Your task to perform on an android device: Clear the cart on amazon.com. Search for bose soundsport free on amazon.com, select the first entry, and add it to the cart. Image 0: 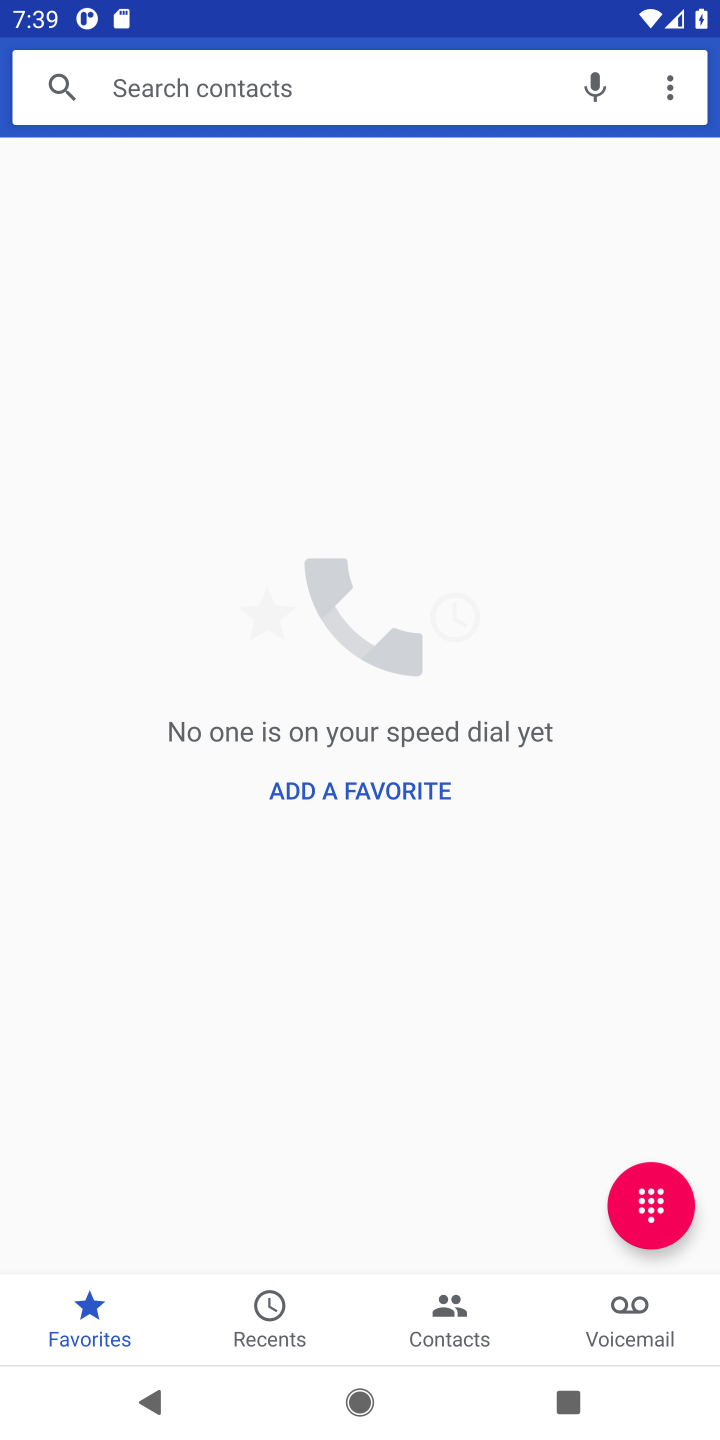
Step 0: press home button
Your task to perform on an android device: Clear the cart on amazon.com. Search for bose soundsport free on amazon.com, select the first entry, and add it to the cart. Image 1: 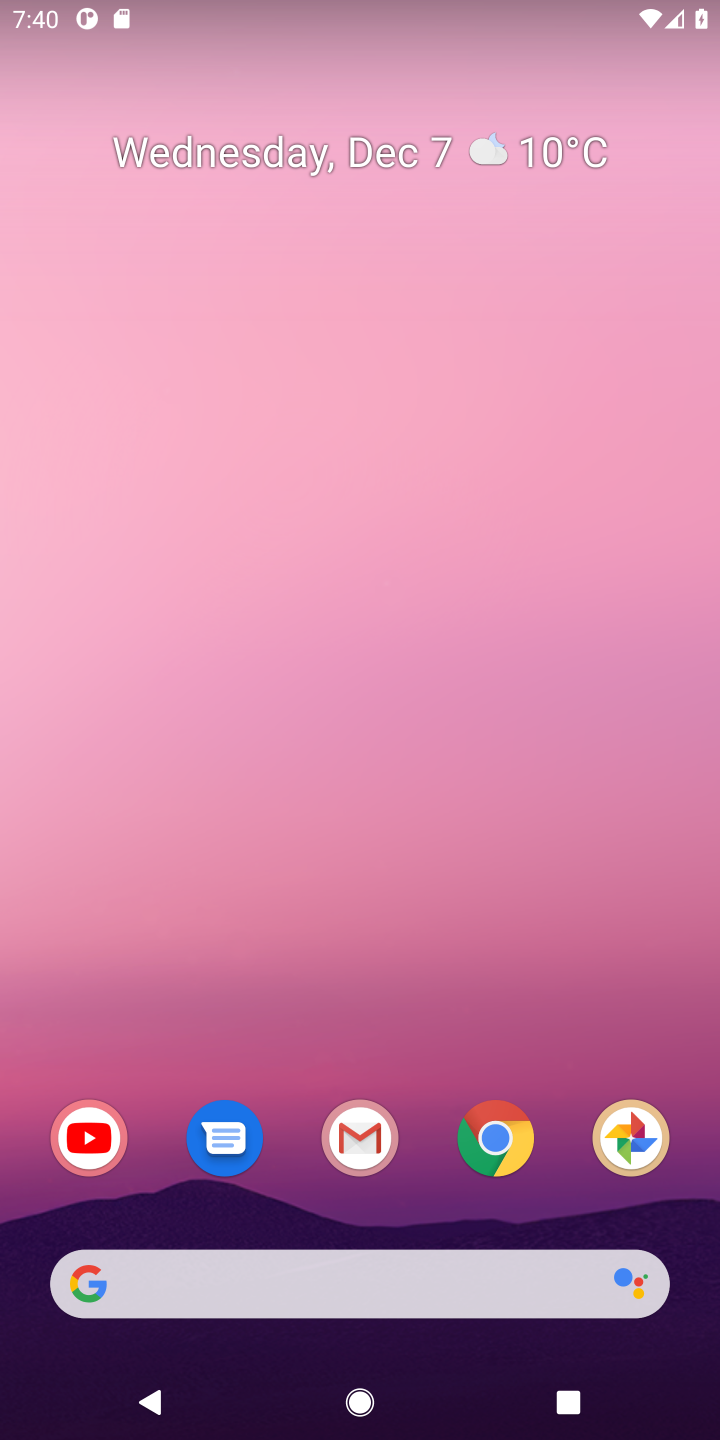
Step 1: click (139, 1283)
Your task to perform on an android device: Clear the cart on amazon.com. Search for bose soundsport free on amazon.com, select the first entry, and add it to the cart. Image 2: 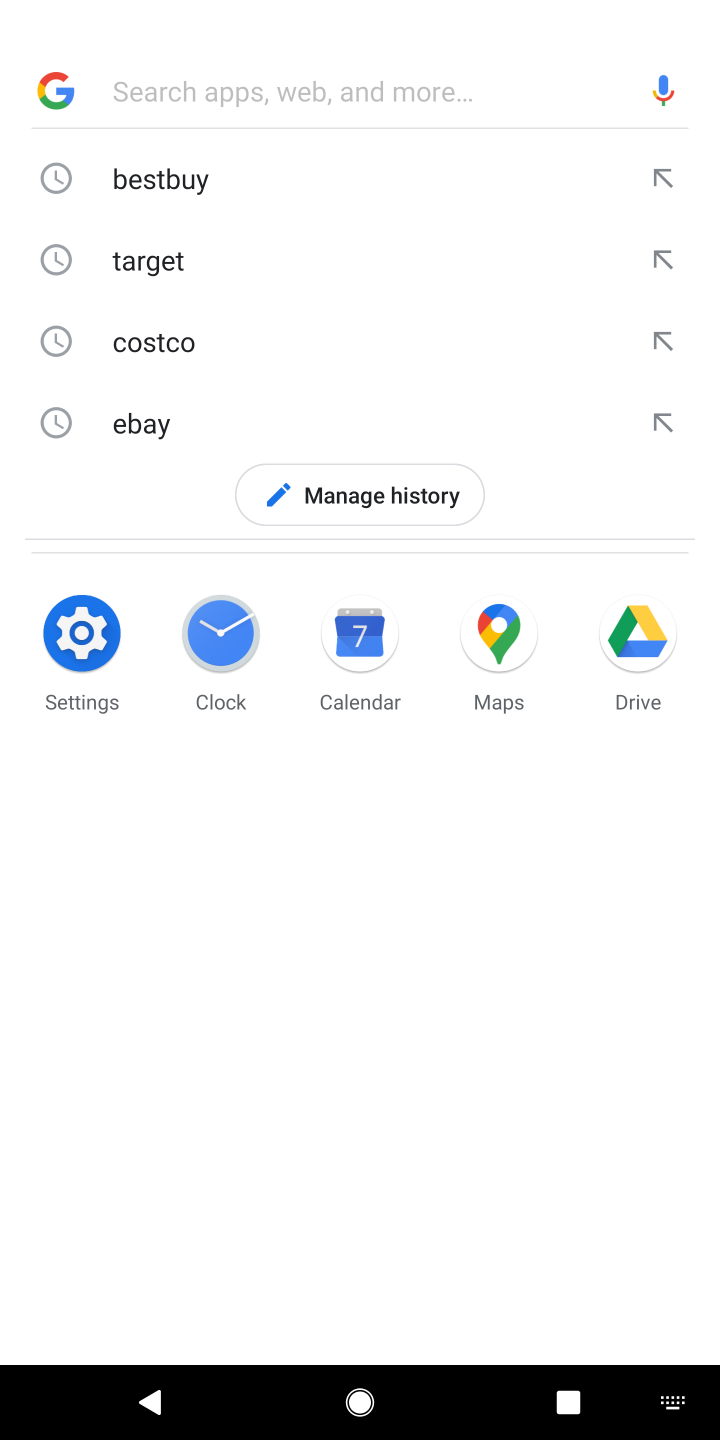
Step 2: type "amazon.com"
Your task to perform on an android device: Clear the cart on amazon.com. Search for bose soundsport free on amazon.com, select the first entry, and add it to the cart. Image 3: 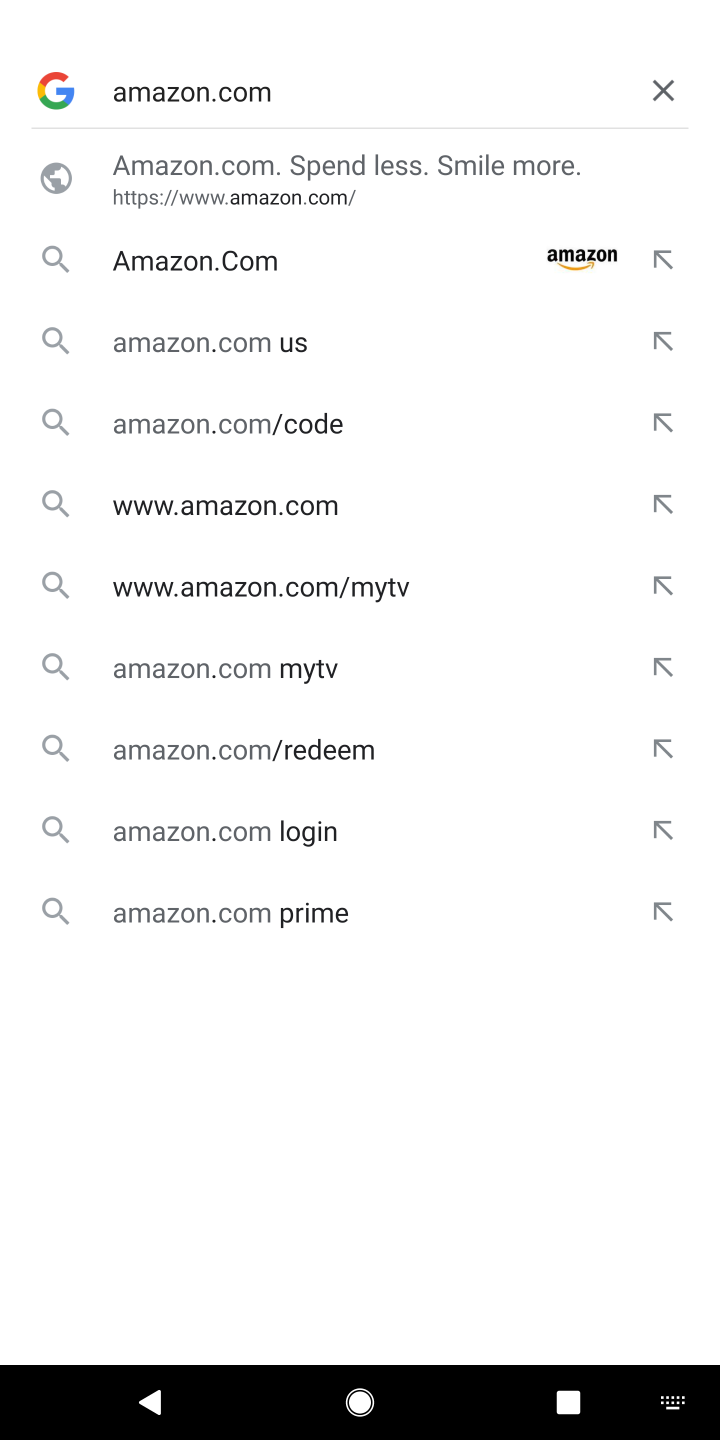
Step 3: press enter
Your task to perform on an android device: Clear the cart on amazon.com. Search for bose soundsport free on amazon.com, select the first entry, and add it to the cart. Image 4: 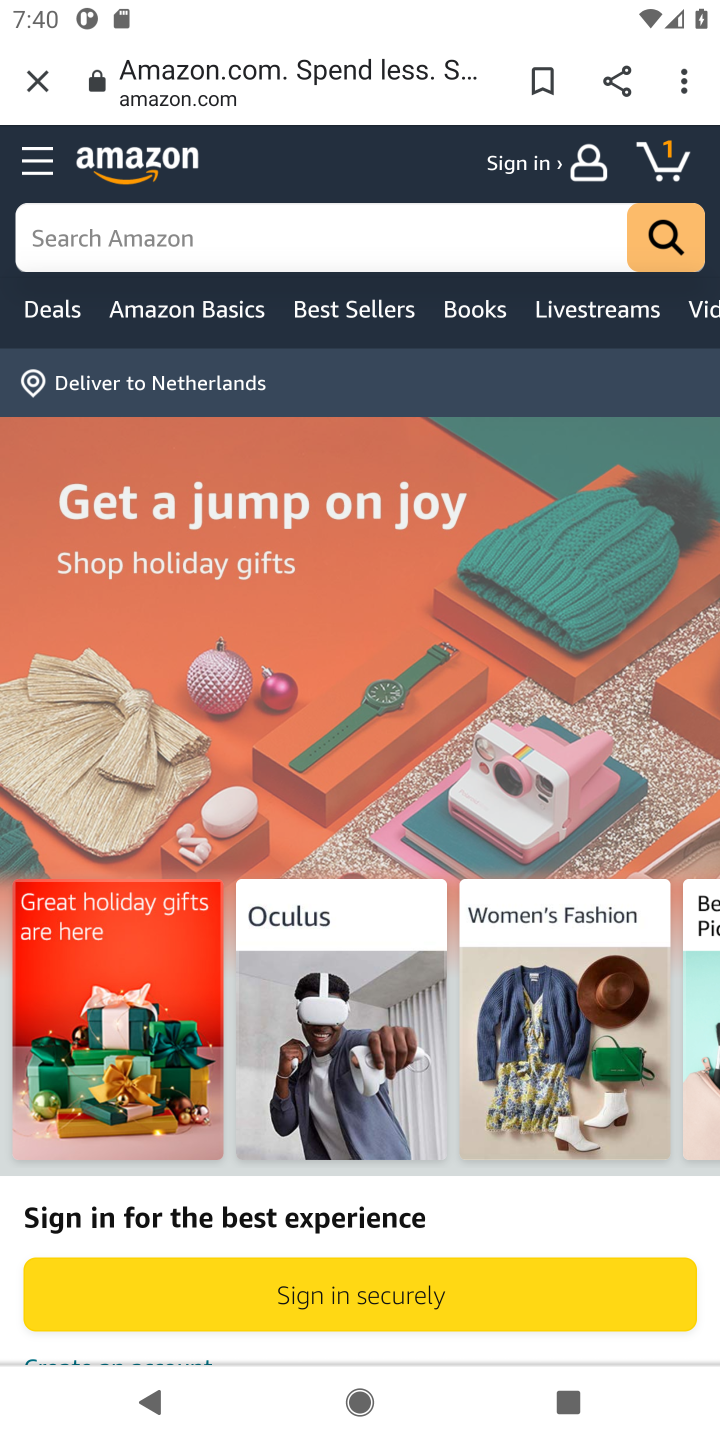
Step 4: click (665, 172)
Your task to perform on an android device: Clear the cart on amazon.com. Search for bose soundsport free on amazon.com, select the first entry, and add it to the cart. Image 5: 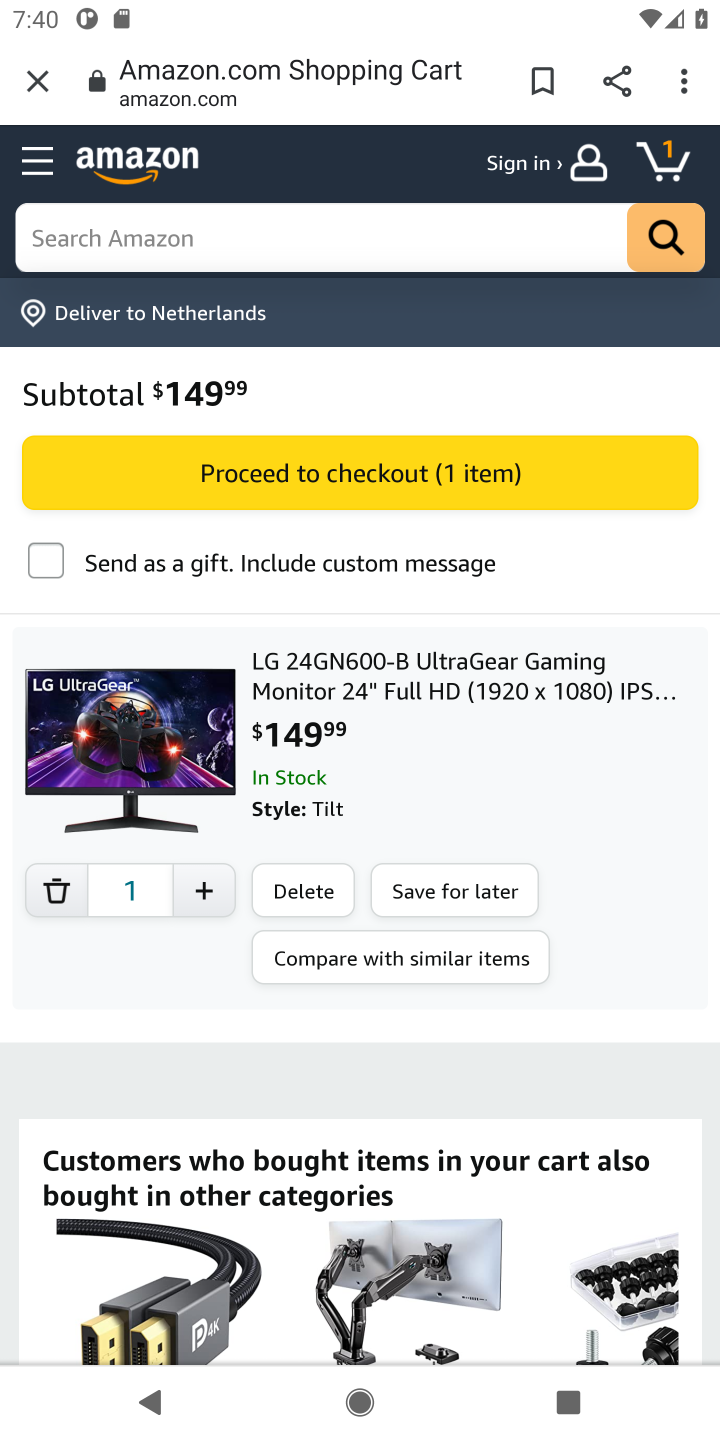
Step 5: click (49, 887)
Your task to perform on an android device: Clear the cart on amazon.com. Search for bose soundsport free on amazon.com, select the first entry, and add it to the cart. Image 6: 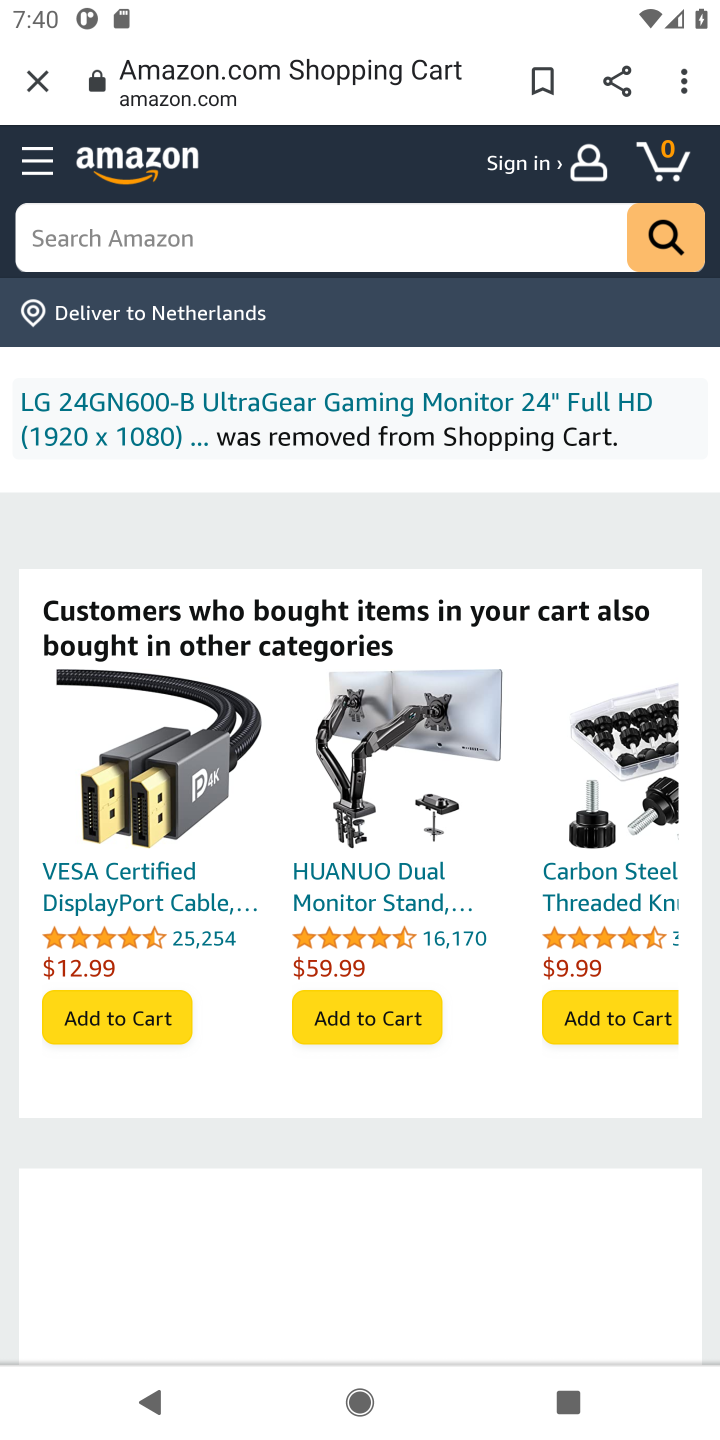
Step 6: click (258, 231)
Your task to perform on an android device: Clear the cart on amazon.com. Search for bose soundsport free on amazon.com, select the first entry, and add it to the cart. Image 7: 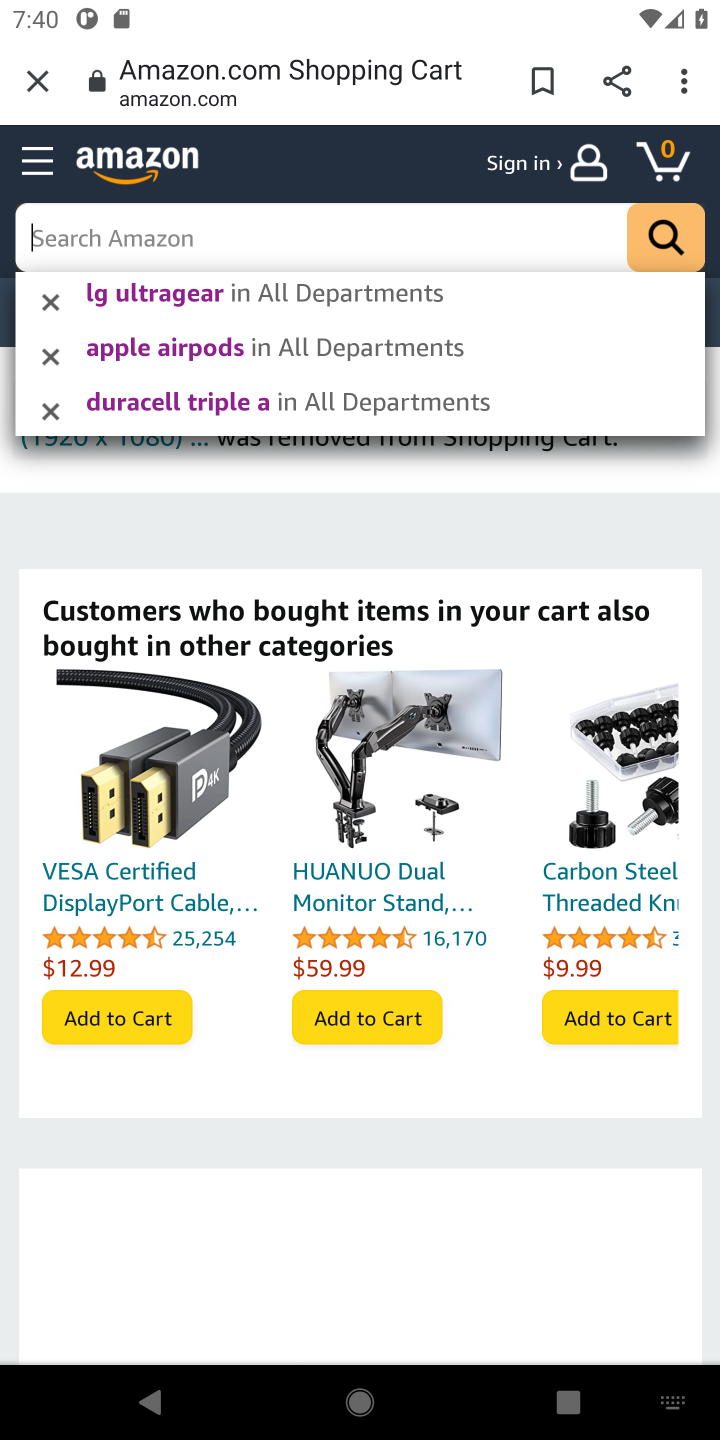
Step 7: type "bose soundsport free"
Your task to perform on an android device: Clear the cart on amazon.com. Search for bose soundsport free on amazon.com, select the first entry, and add it to the cart. Image 8: 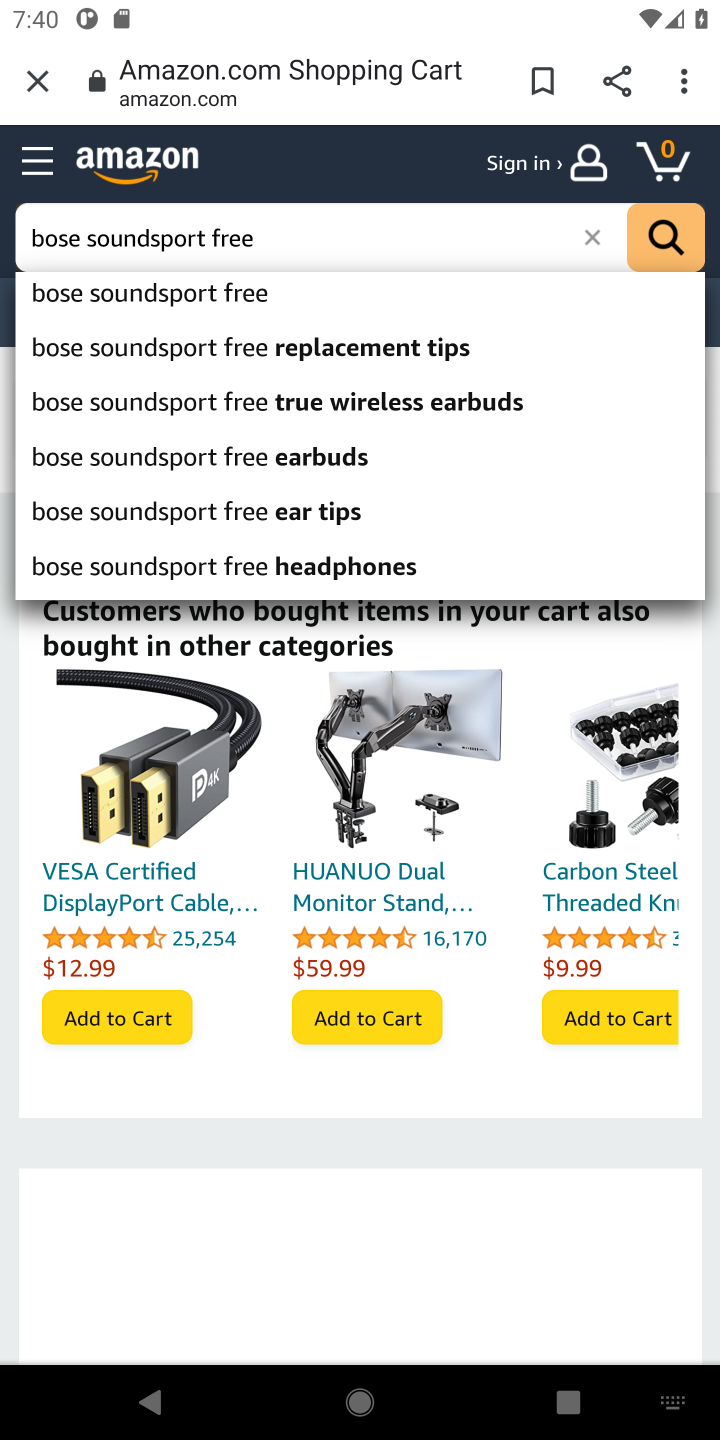
Step 8: click (668, 237)
Your task to perform on an android device: Clear the cart on amazon.com. Search for bose soundsport free on amazon.com, select the first entry, and add it to the cart. Image 9: 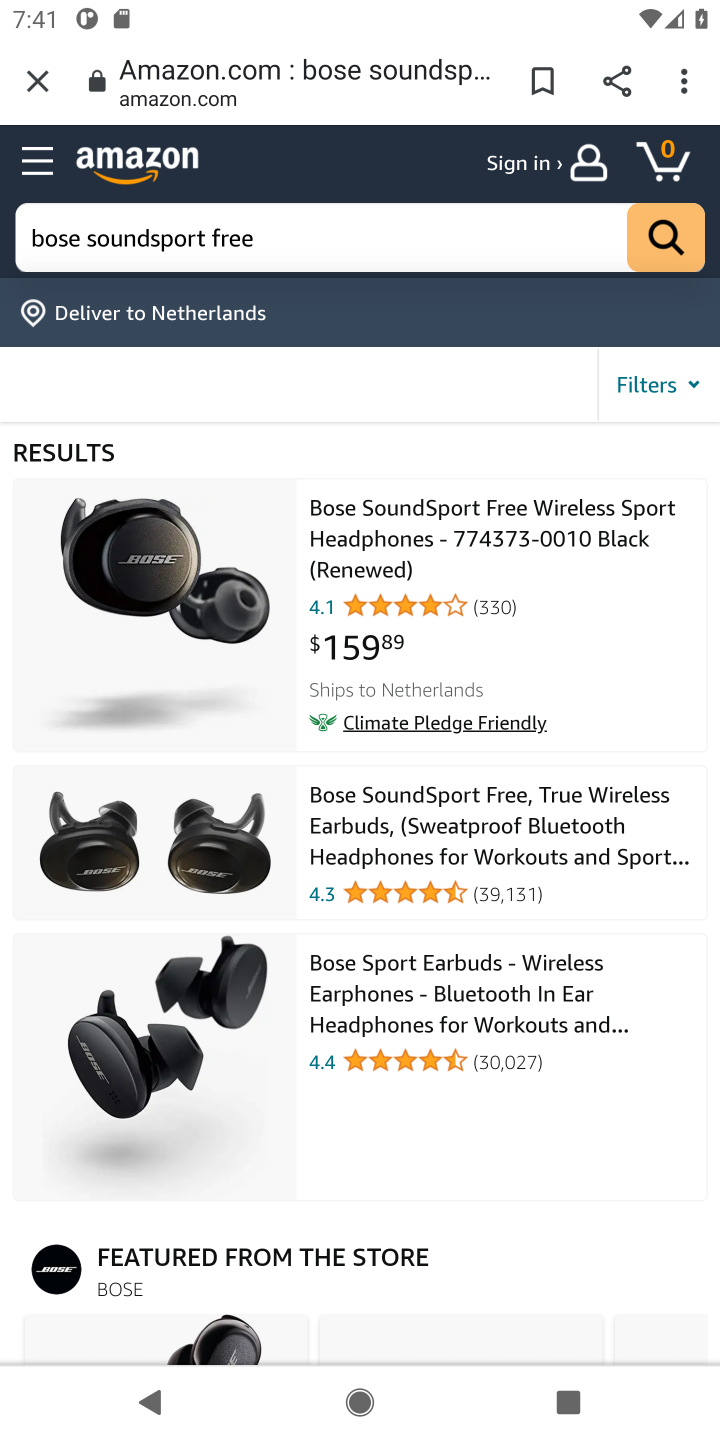
Step 9: click (494, 535)
Your task to perform on an android device: Clear the cart on amazon.com. Search for bose soundsport free on amazon.com, select the first entry, and add it to the cart. Image 10: 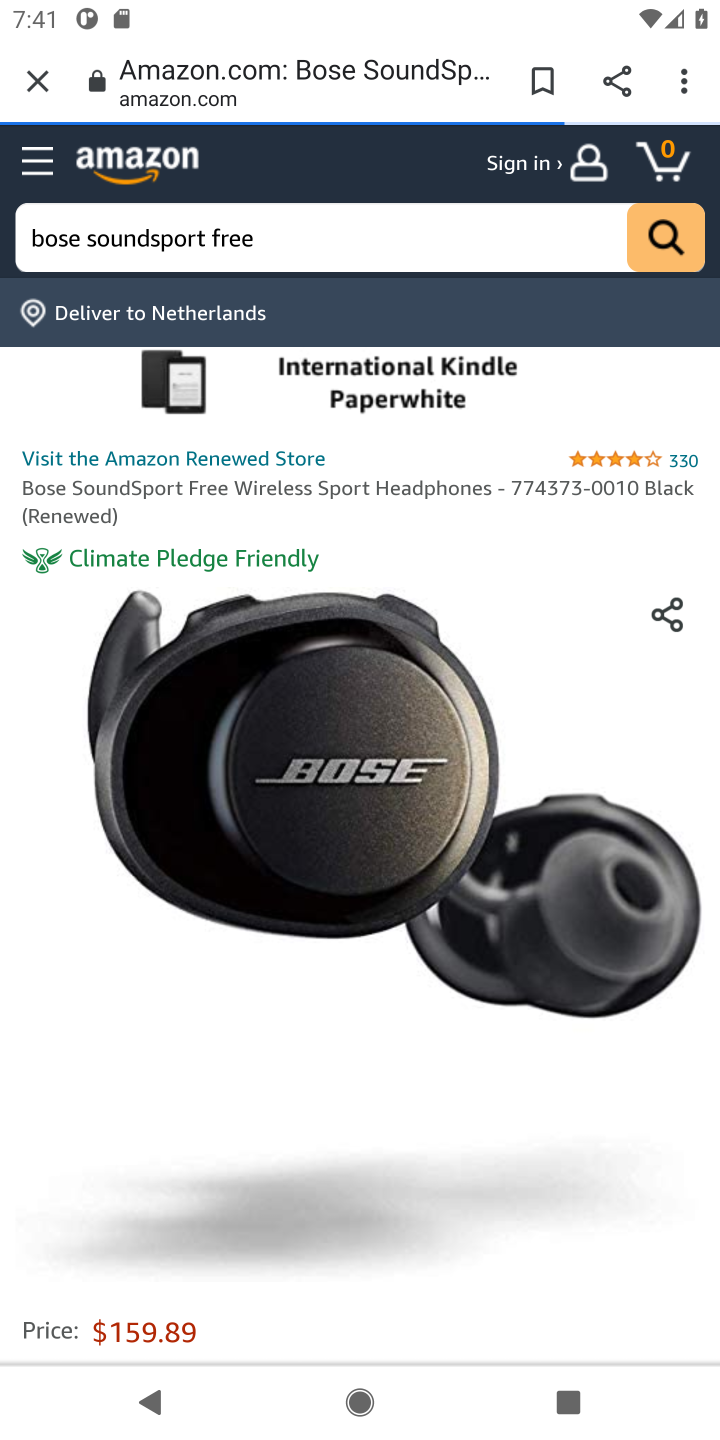
Step 10: drag from (154, 1165) to (257, 499)
Your task to perform on an android device: Clear the cart on amazon.com. Search for bose soundsport free on amazon.com, select the first entry, and add it to the cart. Image 11: 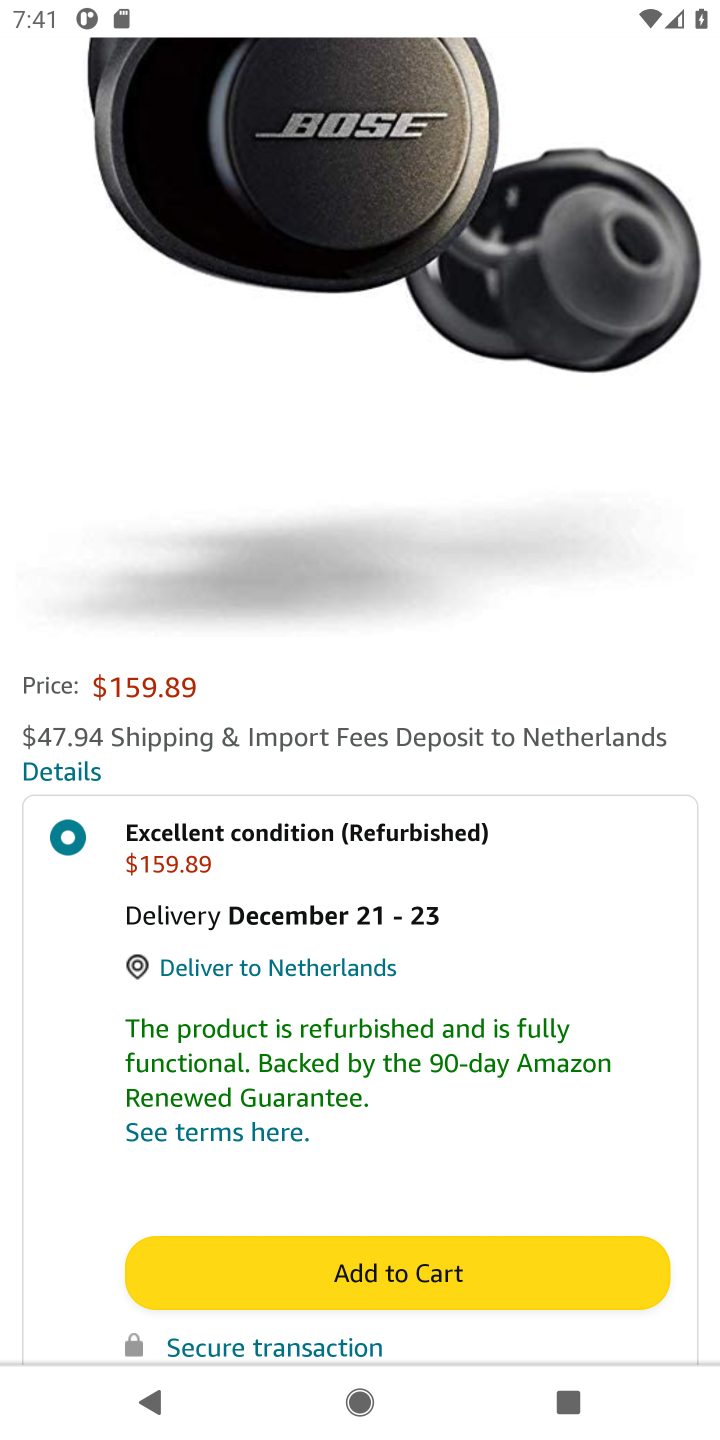
Step 11: drag from (328, 1029) to (430, 341)
Your task to perform on an android device: Clear the cart on amazon.com. Search for bose soundsport free on amazon.com, select the first entry, and add it to the cart. Image 12: 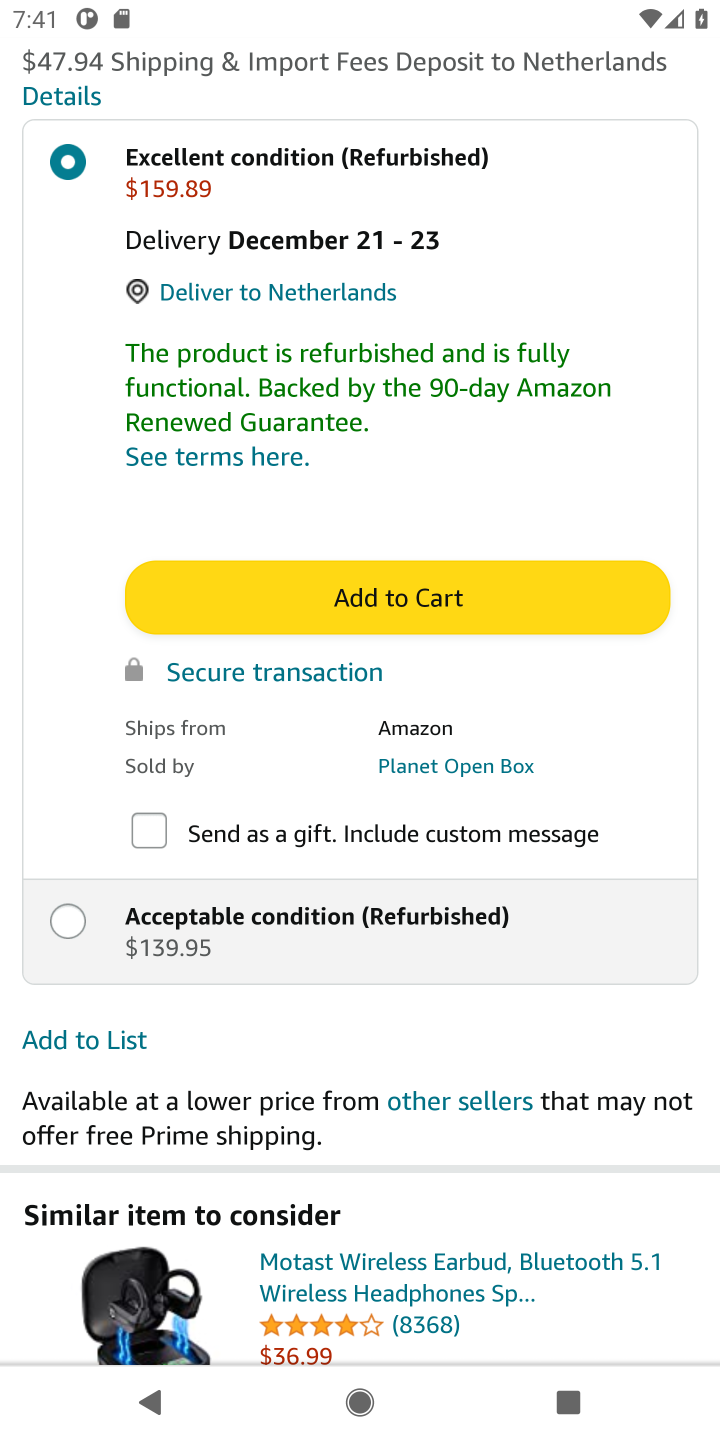
Step 12: click (355, 599)
Your task to perform on an android device: Clear the cart on amazon.com. Search for bose soundsport free on amazon.com, select the first entry, and add it to the cart. Image 13: 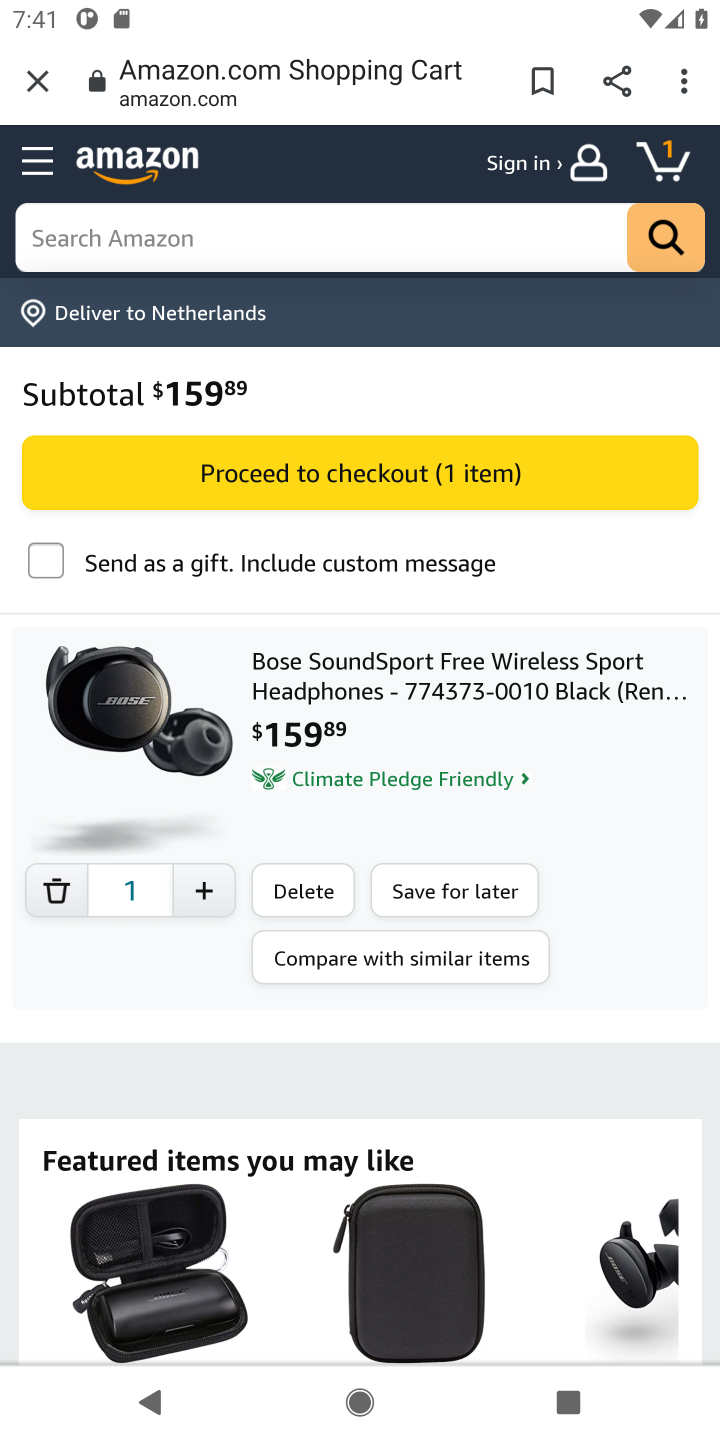
Step 13: task complete